Your task to perform on an android device: Turn off the flashlight Image 0: 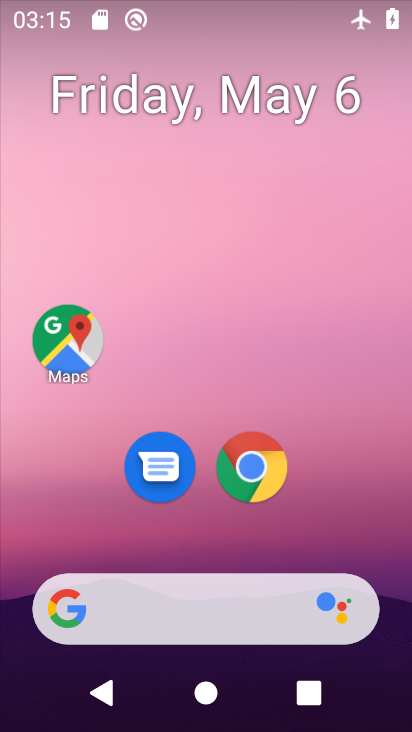
Step 0: drag from (392, 555) to (393, 257)
Your task to perform on an android device: Turn off the flashlight Image 1: 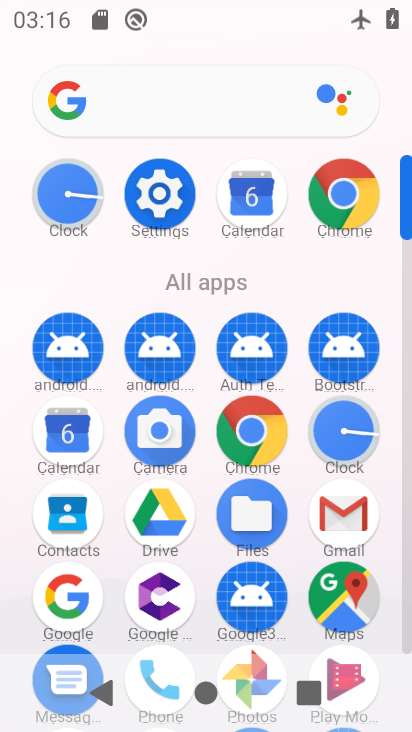
Step 1: click (177, 179)
Your task to perform on an android device: Turn off the flashlight Image 2: 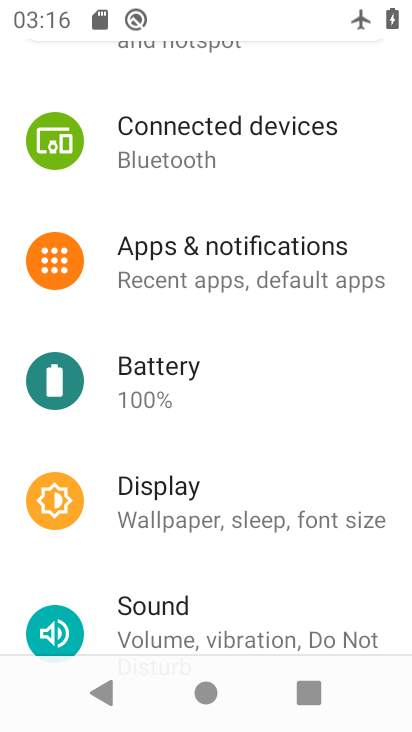
Step 2: drag from (342, 541) to (312, 289)
Your task to perform on an android device: Turn off the flashlight Image 3: 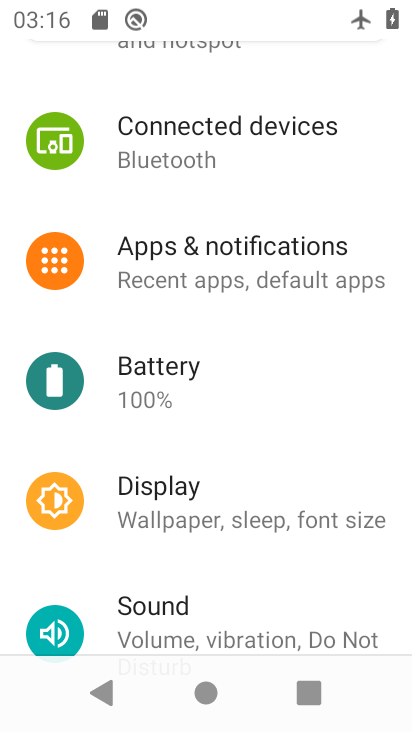
Step 3: click (163, 486)
Your task to perform on an android device: Turn off the flashlight Image 4: 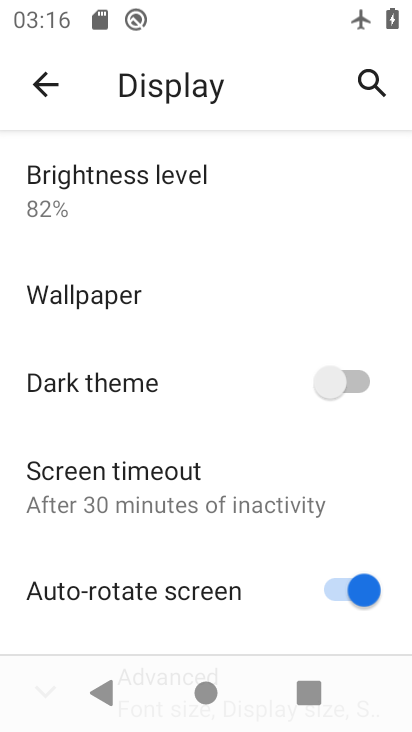
Step 4: task complete